Your task to perform on an android device: snooze an email in the gmail app Image 0: 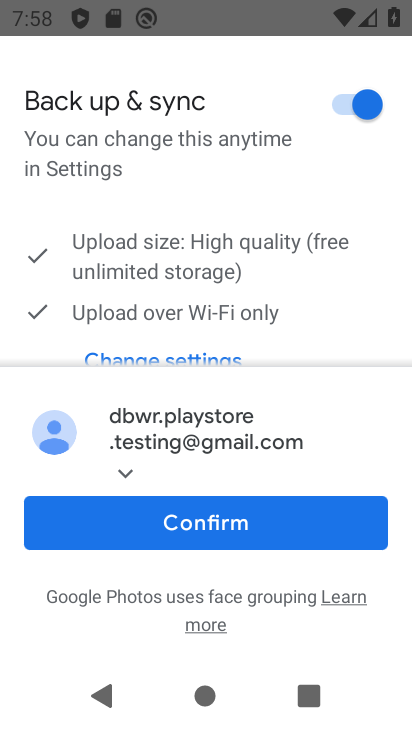
Step 0: click (166, 548)
Your task to perform on an android device: snooze an email in the gmail app Image 1: 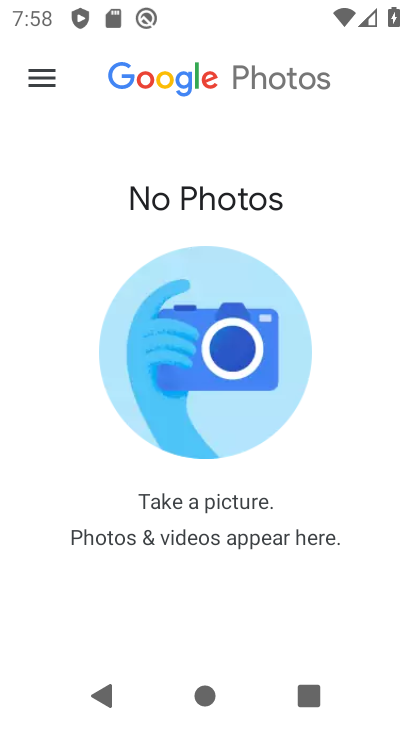
Step 1: press home button
Your task to perform on an android device: snooze an email in the gmail app Image 2: 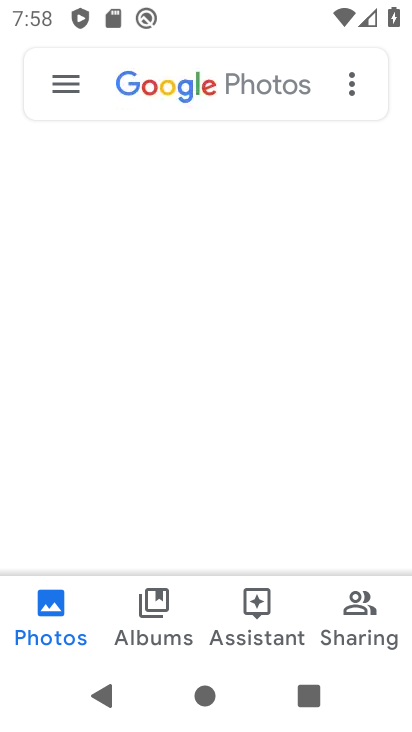
Step 2: drag from (93, 516) to (290, 31)
Your task to perform on an android device: snooze an email in the gmail app Image 3: 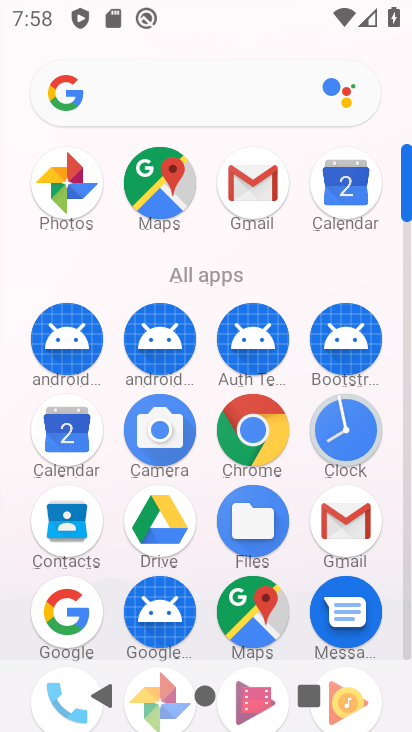
Step 3: click (331, 526)
Your task to perform on an android device: snooze an email in the gmail app Image 4: 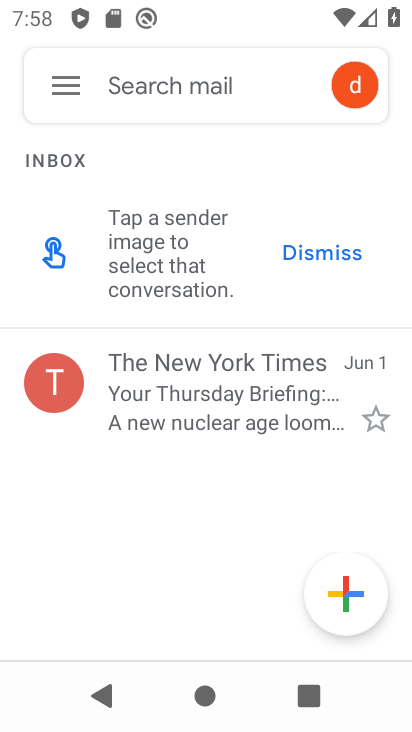
Step 4: click (52, 90)
Your task to perform on an android device: snooze an email in the gmail app Image 5: 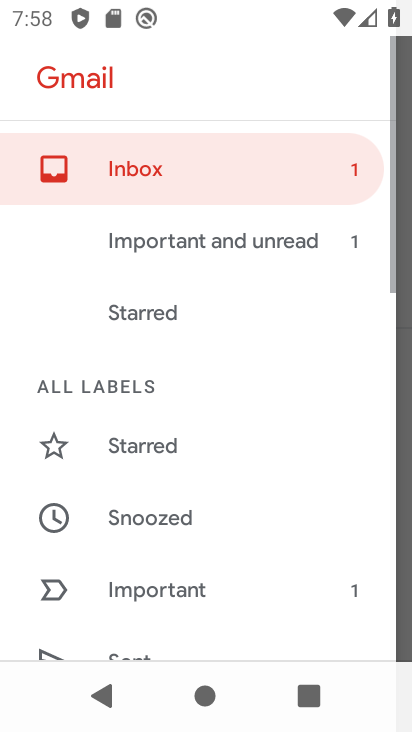
Step 5: drag from (193, 559) to (232, 252)
Your task to perform on an android device: snooze an email in the gmail app Image 6: 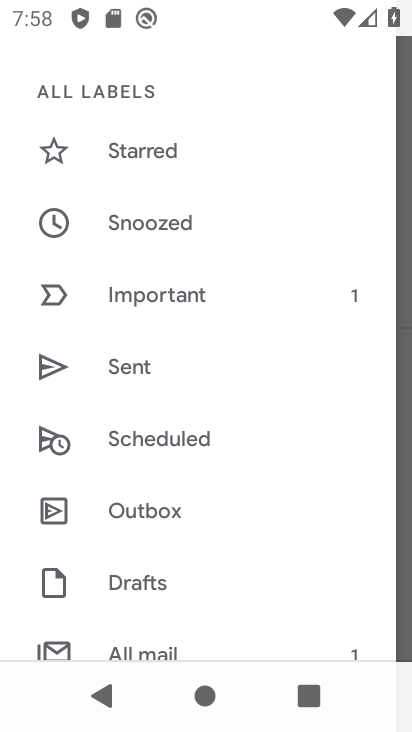
Step 6: drag from (241, 567) to (317, 148)
Your task to perform on an android device: snooze an email in the gmail app Image 7: 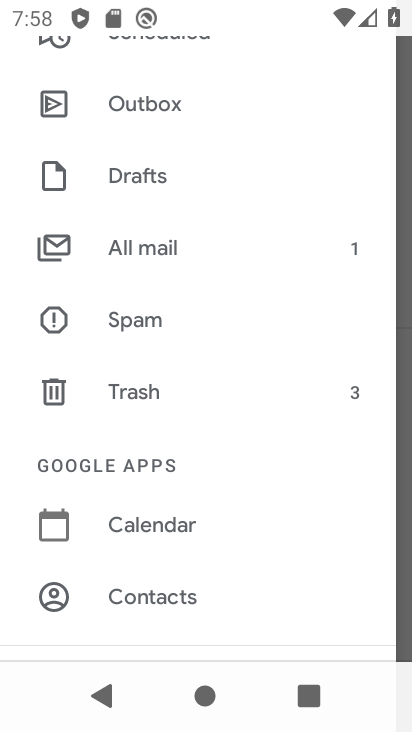
Step 7: drag from (191, 193) to (184, 648)
Your task to perform on an android device: snooze an email in the gmail app Image 8: 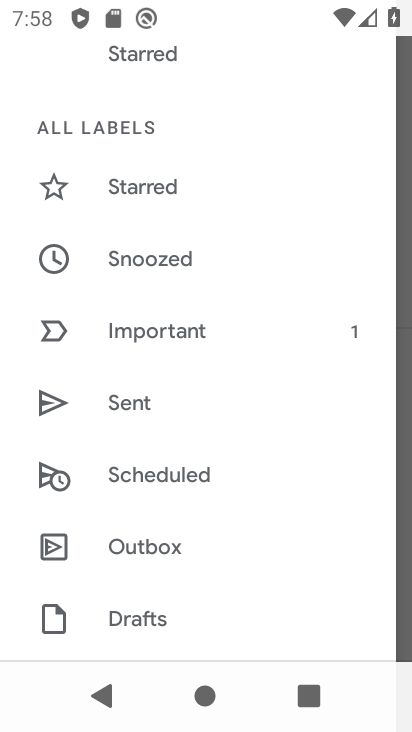
Step 8: click (197, 257)
Your task to perform on an android device: snooze an email in the gmail app Image 9: 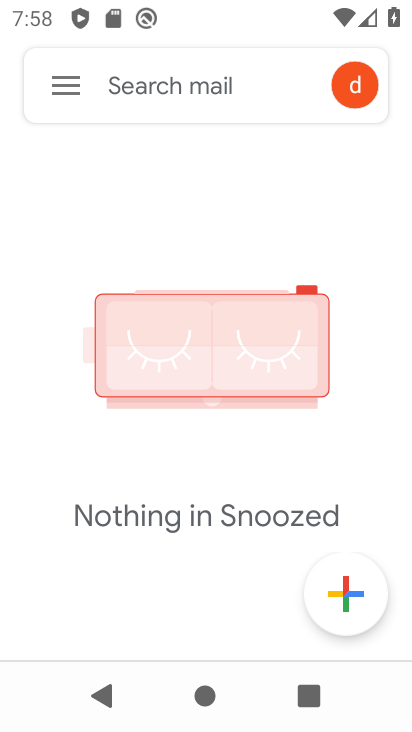
Step 9: task complete